Your task to perform on an android device: Open Maps and search for coffee Image 0: 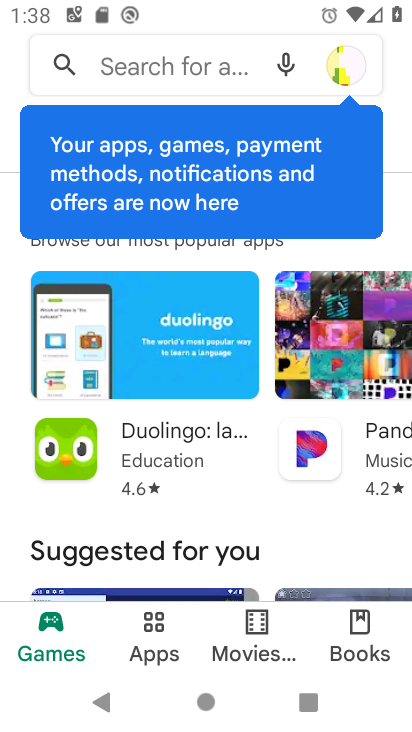
Step 0: press home button
Your task to perform on an android device: Open Maps and search for coffee Image 1: 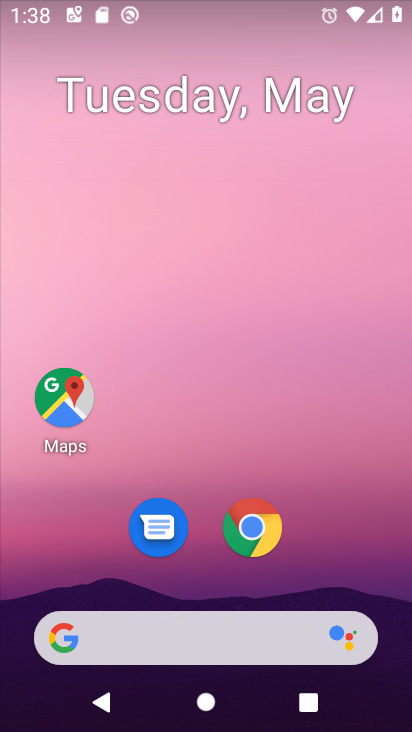
Step 1: click (53, 396)
Your task to perform on an android device: Open Maps and search for coffee Image 2: 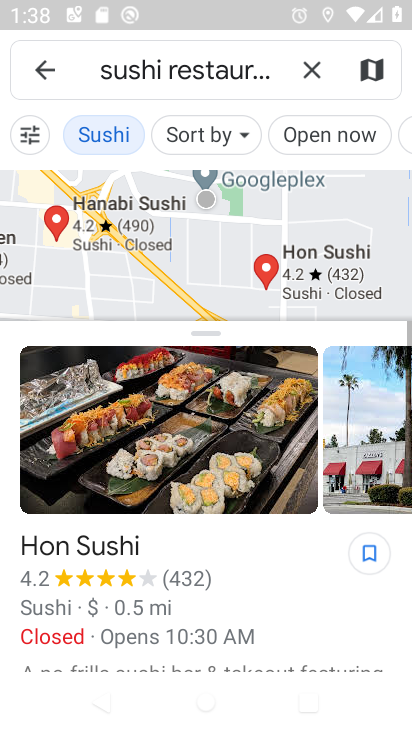
Step 2: click (303, 65)
Your task to perform on an android device: Open Maps and search for coffee Image 3: 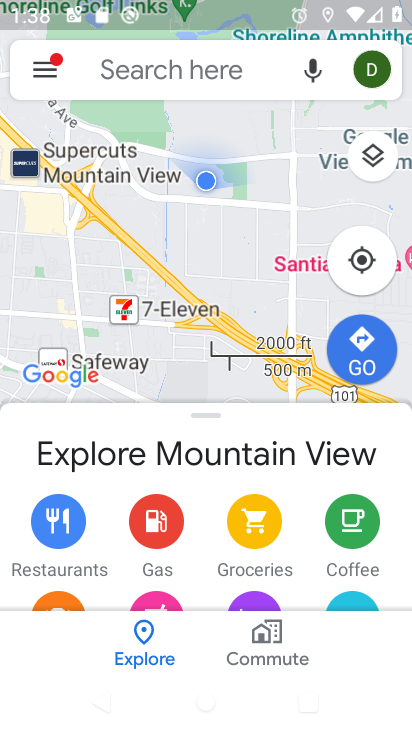
Step 3: click (189, 64)
Your task to perform on an android device: Open Maps and search for coffee Image 4: 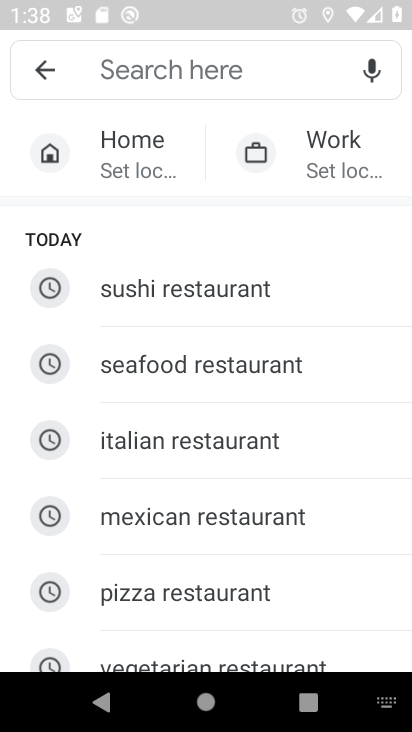
Step 4: type "coffee"
Your task to perform on an android device: Open Maps and search for coffee Image 5: 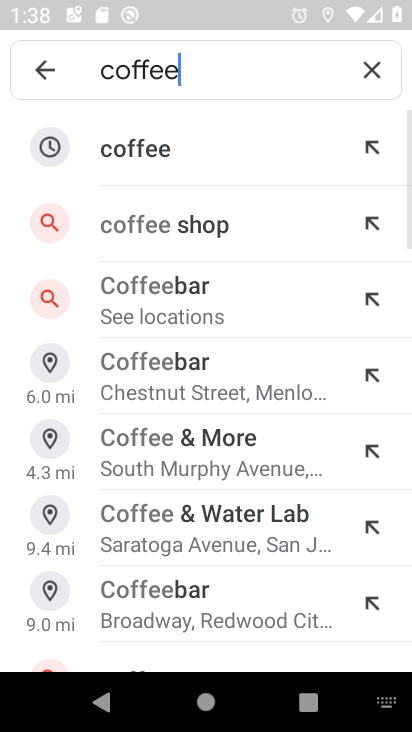
Step 5: click (139, 144)
Your task to perform on an android device: Open Maps and search for coffee Image 6: 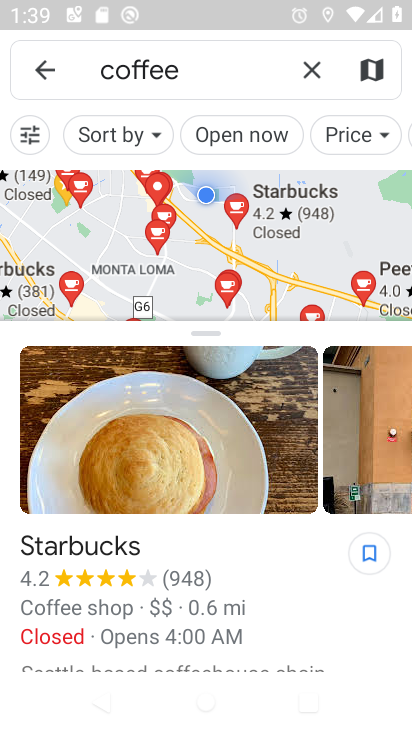
Step 6: task complete